Your task to perform on an android device: install app "ZOOM Cloud Meetings" Image 0: 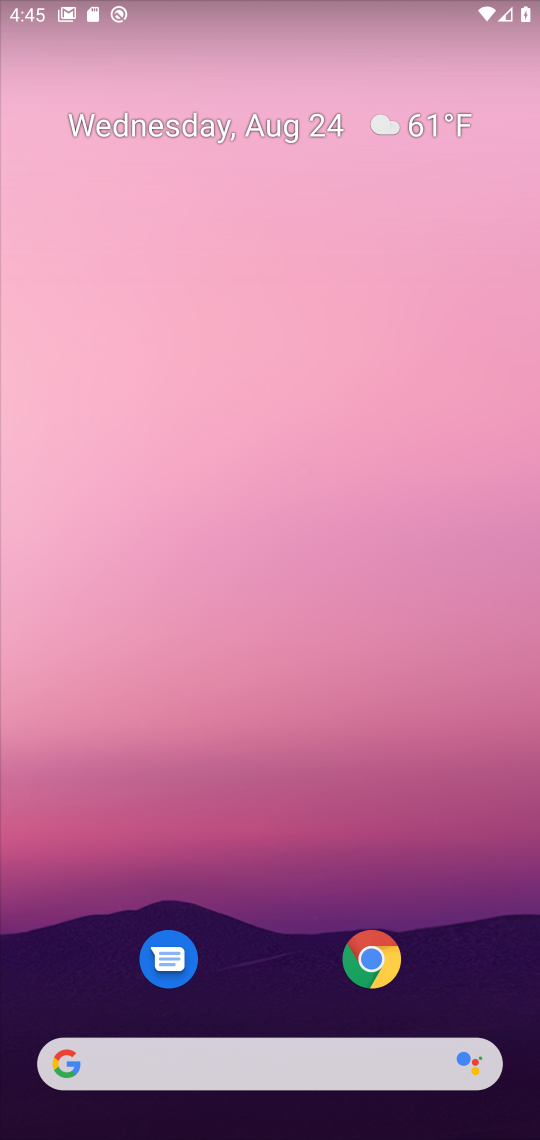
Step 0: drag from (334, 1038) to (337, 331)
Your task to perform on an android device: install app "ZOOM Cloud Meetings" Image 1: 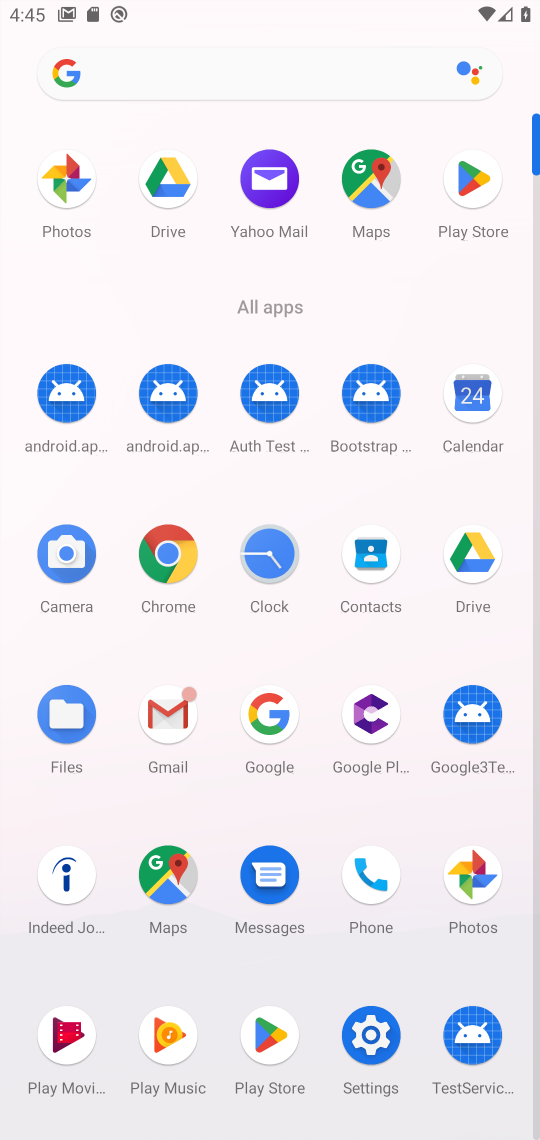
Step 1: click (461, 188)
Your task to perform on an android device: install app "ZOOM Cloud Meetings" Image 2: 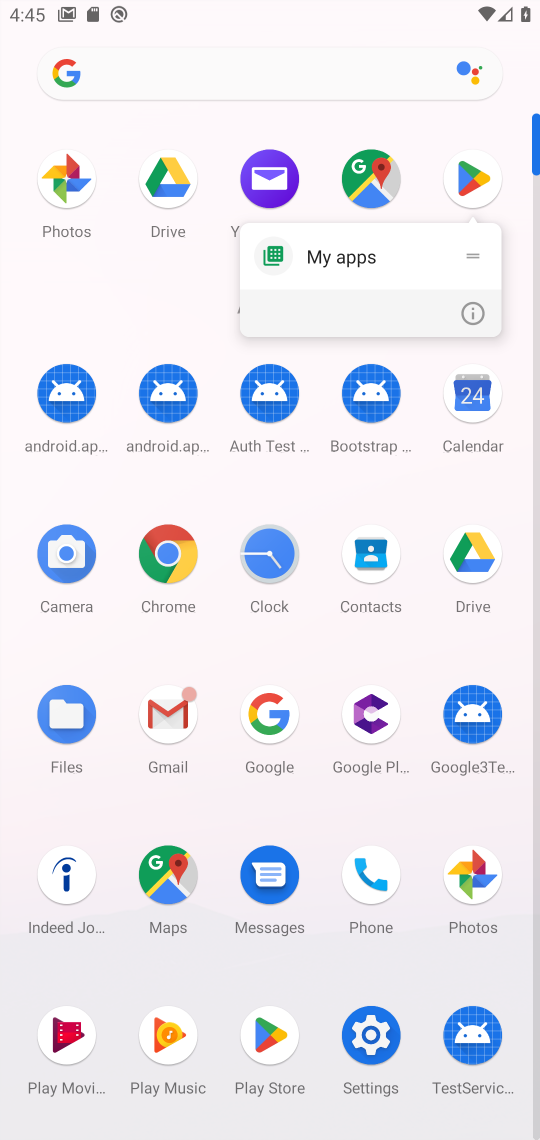
Step 2: click (470, 179)
Your task to perform on an android device: install app "ZOOM Cloud Meetings" Image 3: 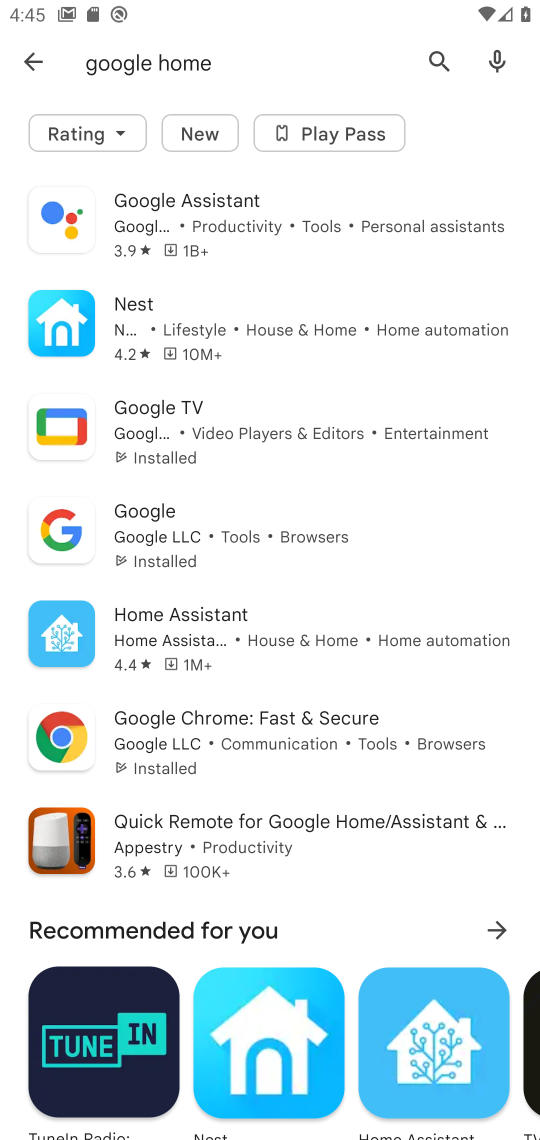
Step 3: click (436, 56)
Your task to perform on an android device: install app "ZOOM Cloud Meetings" Image 4: 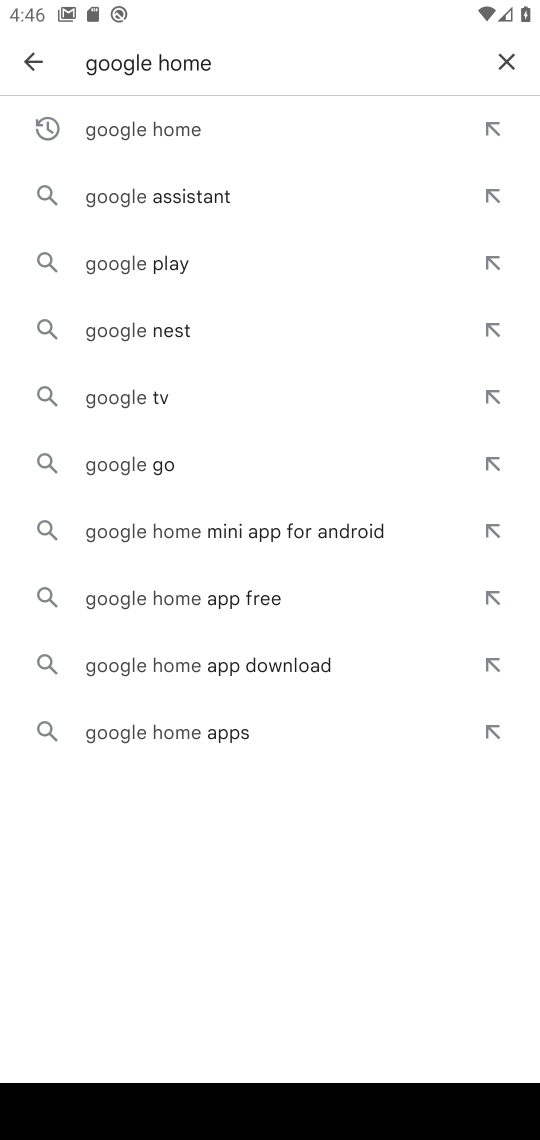
Step 4: click (508, 69)
Your task to perform on an android device: install app "ZOOM Cloud Meetings" Image 5: 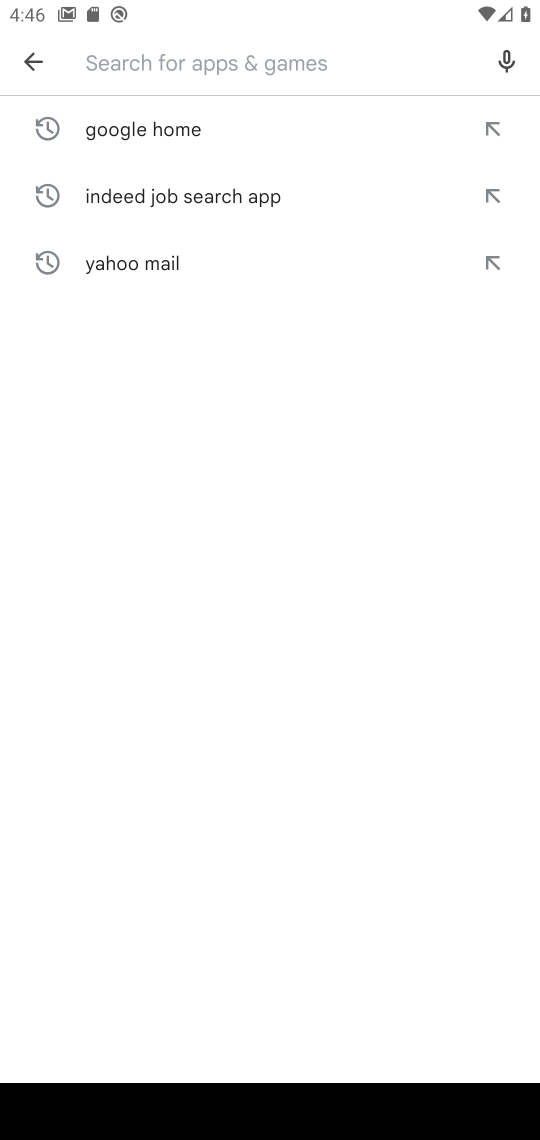
Step 5: type "ZOOM Cloud Meetings"
Your task to perform on an android device: install app "ZOOM Cloud Meetings" Image 6: 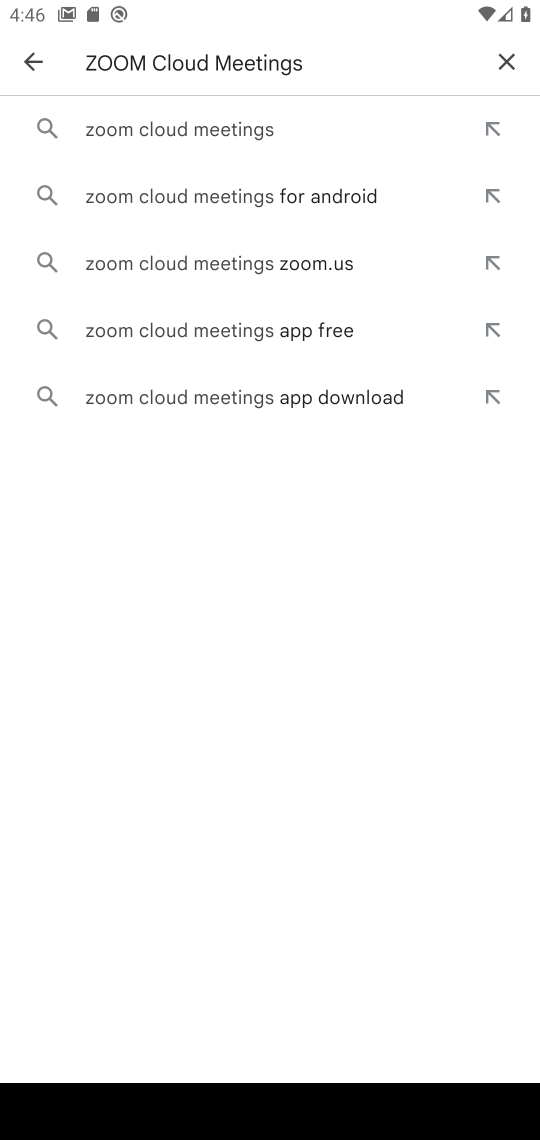
Step 6: click (203, 134)
Your task to perform on an android device: install app "ZOOM Cloud Meetings" Image 7: 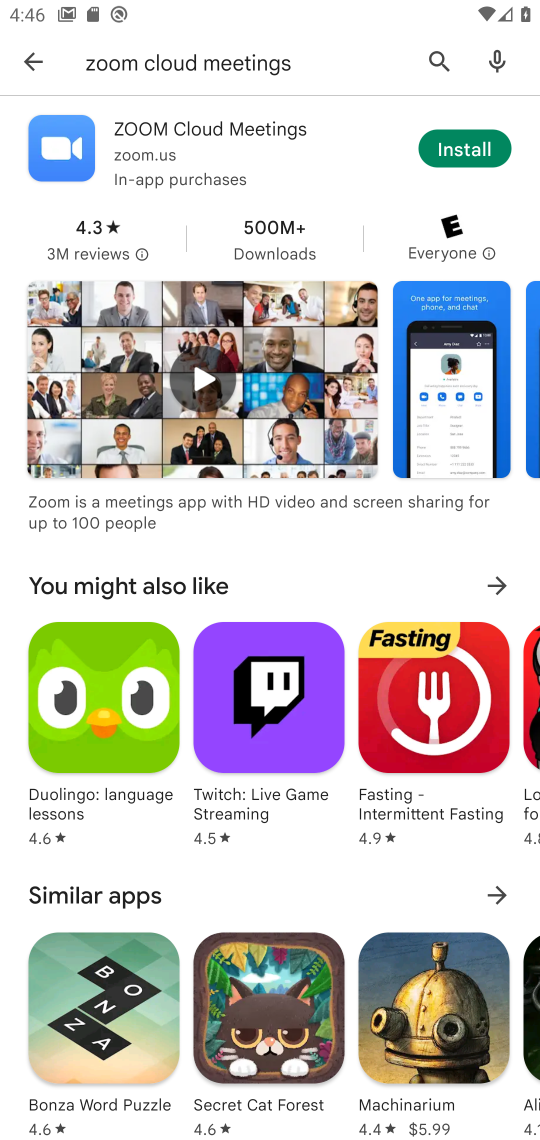
Step 7: click (469, 152)
Your task to perform on an android device: install app "ZOOM Cloud Meetings" Image 8: 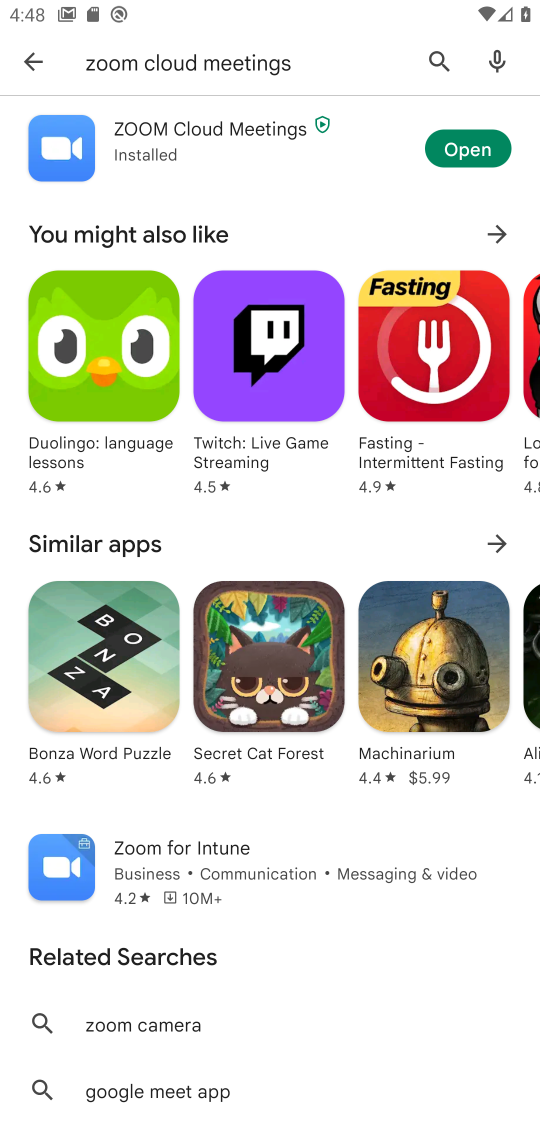
Step 8: click (475, 140)
Your task to perform on an android device: install app "ZOOM Cloud Meetings" Image 9: 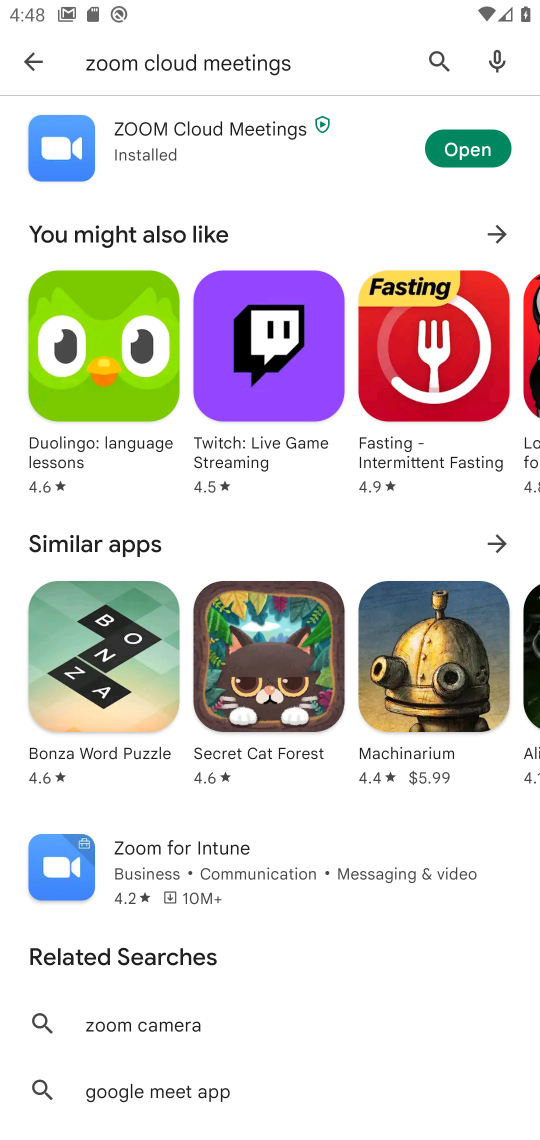
Step 9: task complete